Your task to perform on an android device: change timer sound Image 0: 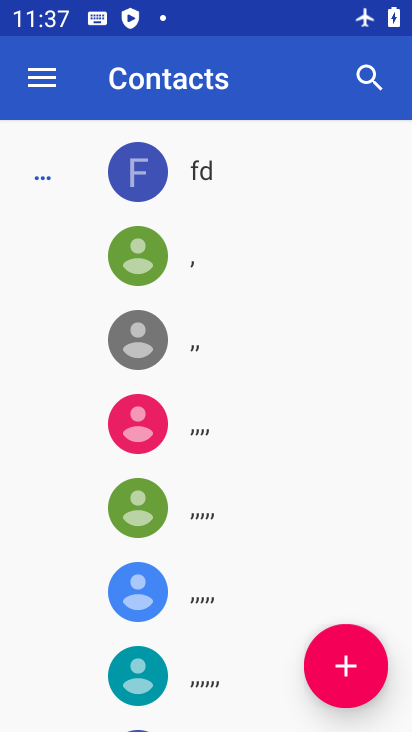
Step 0: press home button
Your task to perform on an android device: change timer sound Image 1: 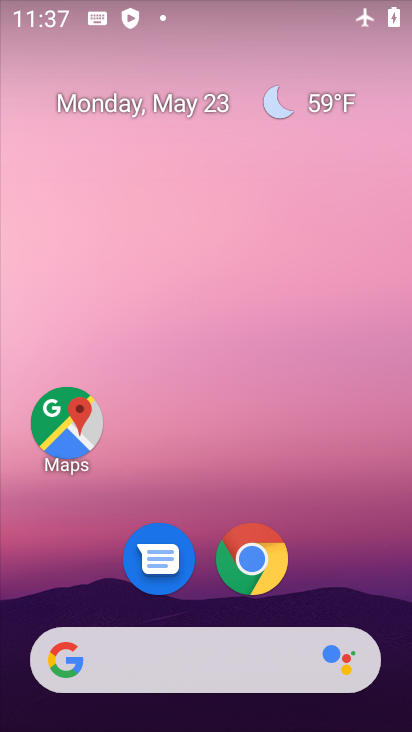
Step 1: drag from (391, 641) to (278, 34)
Your task to perform on an android device: change timer sound Image 2: 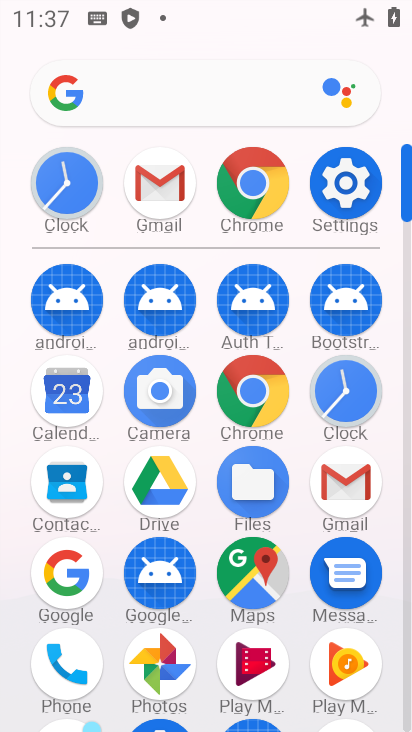
Step 2: click (336, 408)
Your task to perform on an android device: change timer sound Image 3: 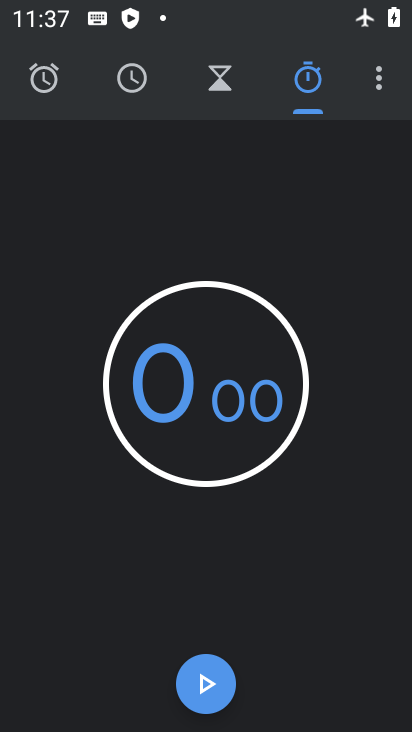
Step 3: click (384, 80)
Your task to perform on an android device: change timer sound Image 4: 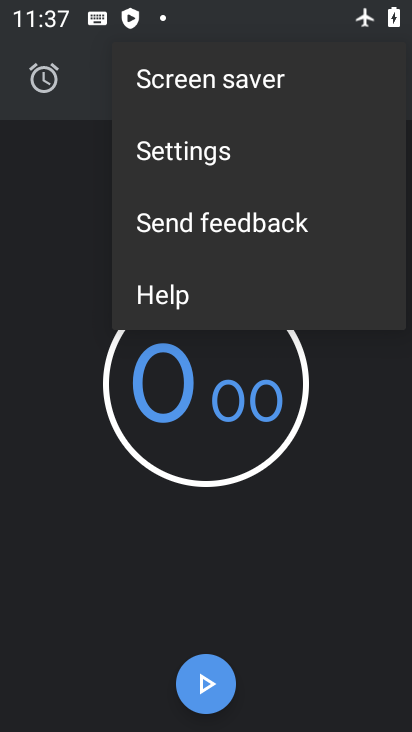
Step 4: click (266, 158)
Your task to perform on an android device: change timer sound Image 5: 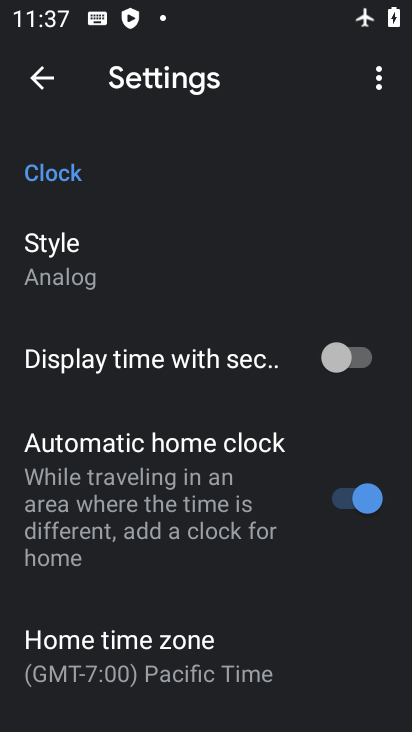
Step 5: drag from (175, 626) to (228, 177)
Your task to perform on an android device: change timer sound Image 6: 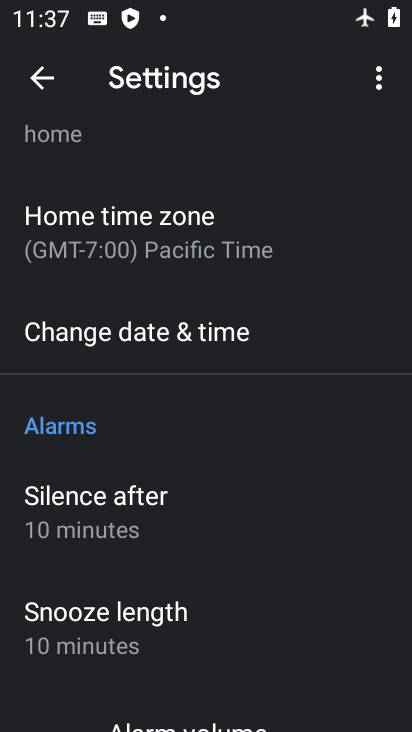
Step 6: drag from (158, 651) to (206, 87)
Your task to perform on an android device: change timer sound Image 7: 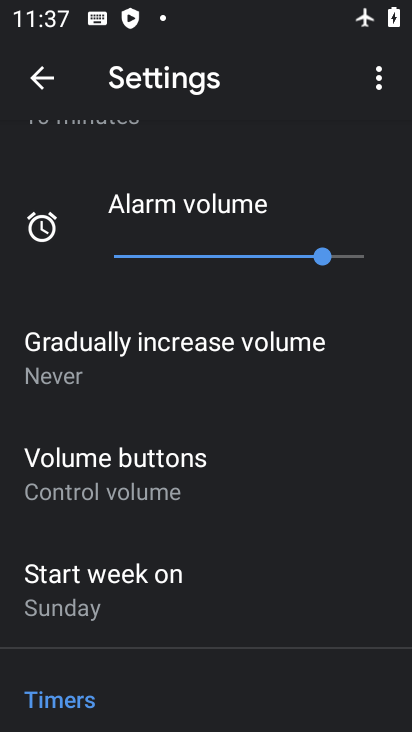
Step 7: drag from (178, 621) to (227, 157)
Your task to perform on an android device: change timer sound Image 8: 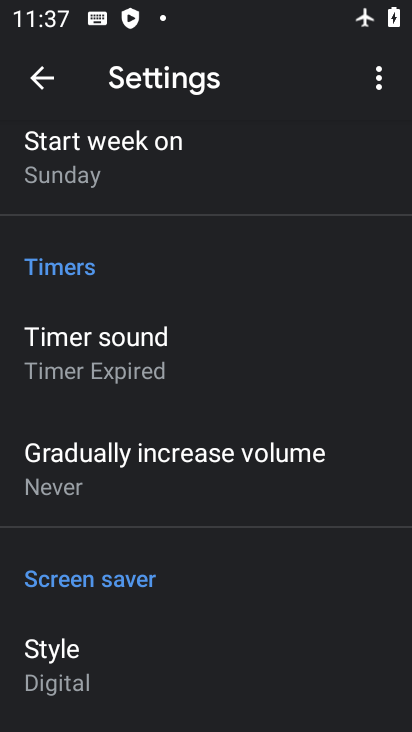
Step 8: click (208, 367)
Your task to perform on an android device: change timer sound Image 9: 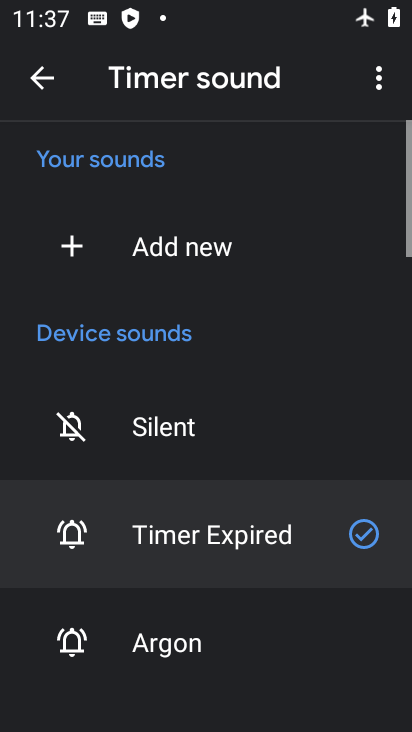
Step 9: drag from (211, 651) to (265, 324)
Your task to perform on an android device: change timer sound Image 10: 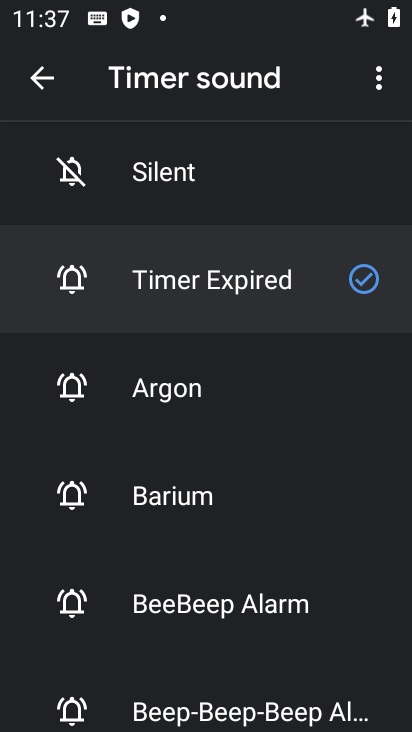
Step 10: click (197, 516)
Your task to perform on an android device: change timer sound Image 11: 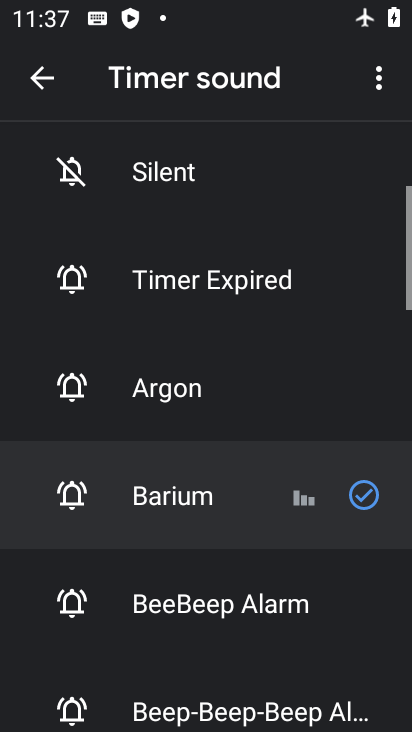
Step 11: task complete